Your task to perform on an android device: Open the calendar and show me this week's events? Image 0: 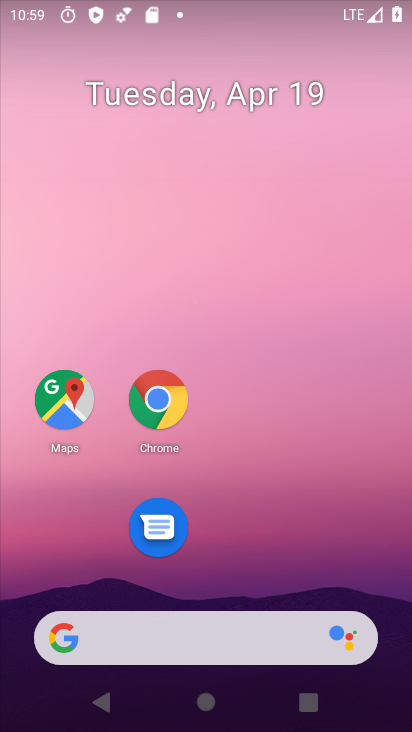
Step 0: drag from (254, 676) to (264, 108)
Your task to perform on an android device: Open the calendar and show me this week's events? Image 1: 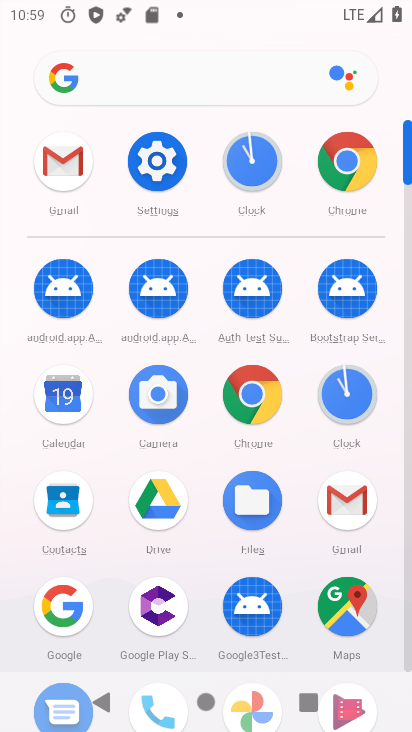
Step 1: click (69, 385)
Your task to perform on an android device: Open the calendar and show me this week's events? Image 2: 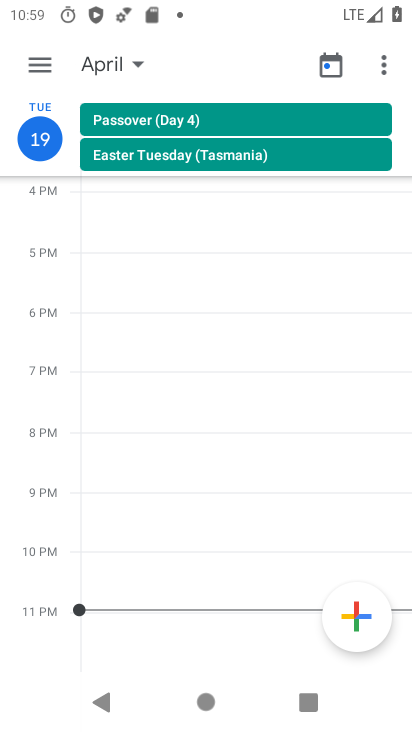
Step 2: click (38, 75)
Your task to perform on an android device: Open the calendar and show me this week's events? Image 3: 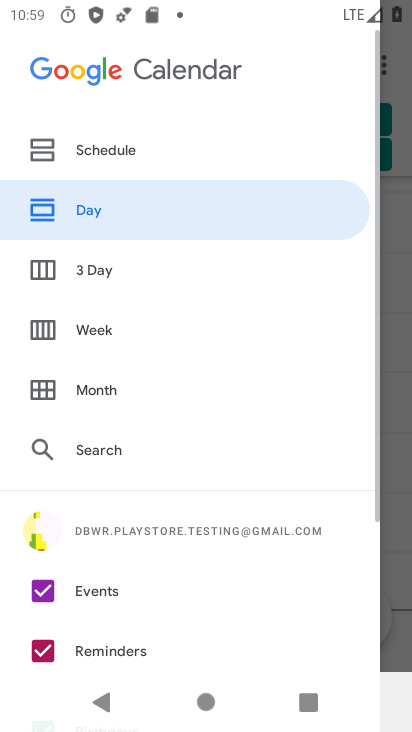
Step 3: click (115, 154)
Your task to perform on an android device: Open the calendar and show me this week's events? Image 4: 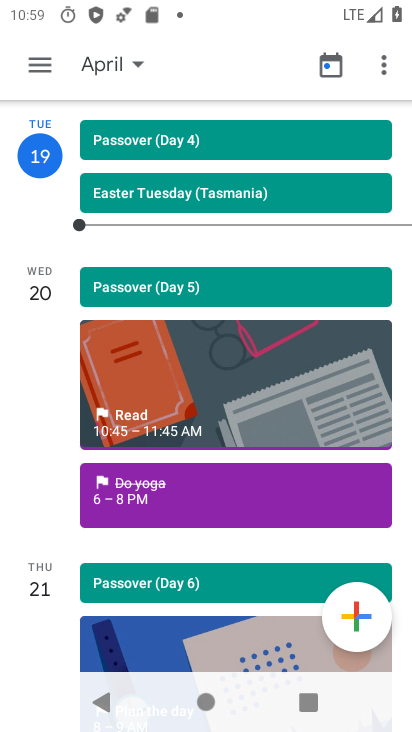
Step 4: click (42, 64)
Your task to perform on an android device: Open the calendar and show me this week's events? Image 5: 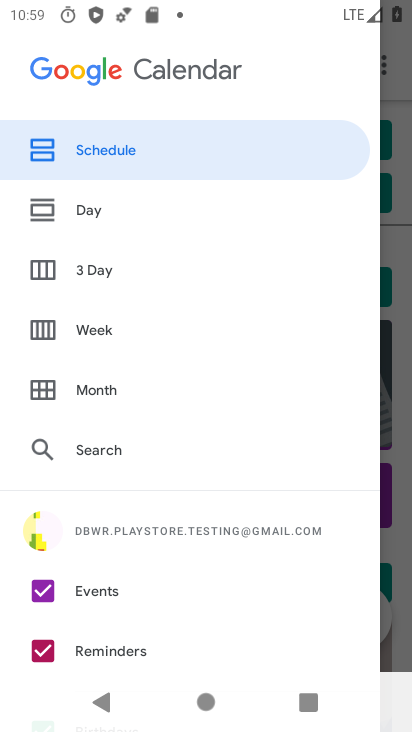
Step 5: click (91, 326)
Your task to perform on an android device: Open the calendar and show me this week's events? Image 6: 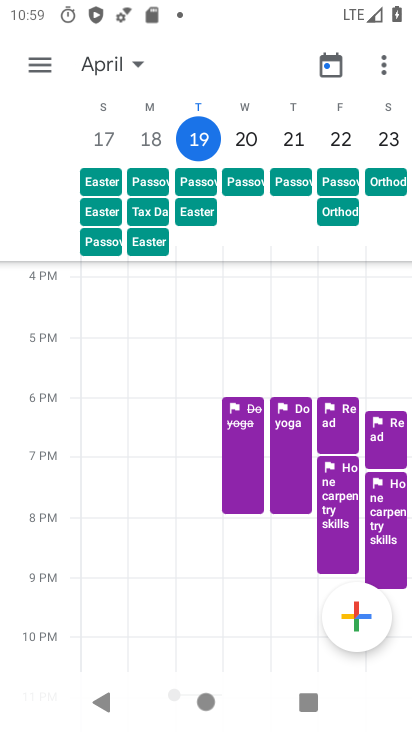
Step 6: task complete